Your task to perform on an android device: Open display settings Image 0: 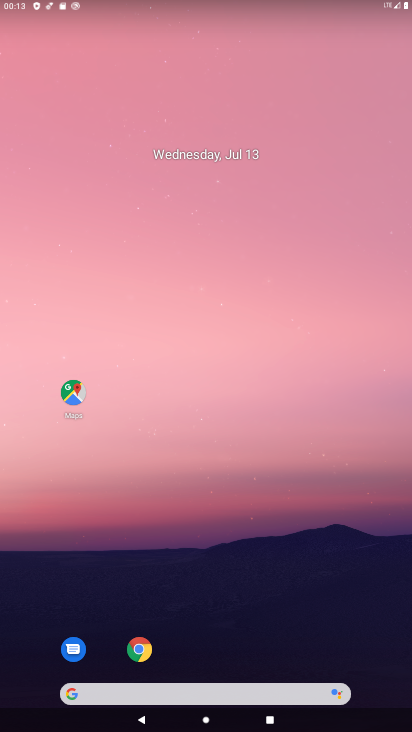
Step 0: drag from (278, 631) to (306, 35)
Your task to perform on an android device: Open display settings Image 1: 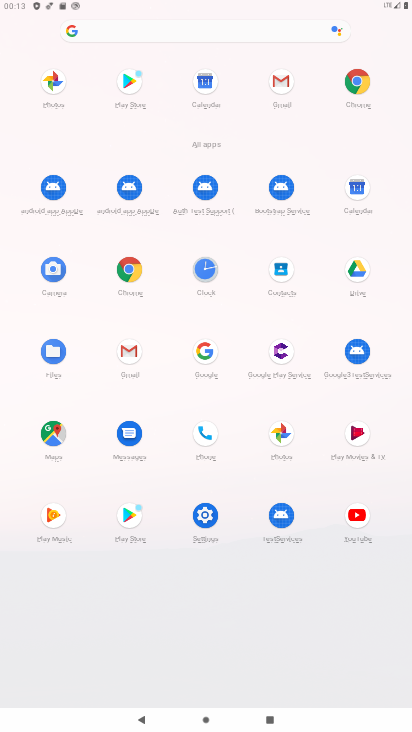
Step 1: click (217, 517)
Your task to perform on an android device: Open display settings Image 2: 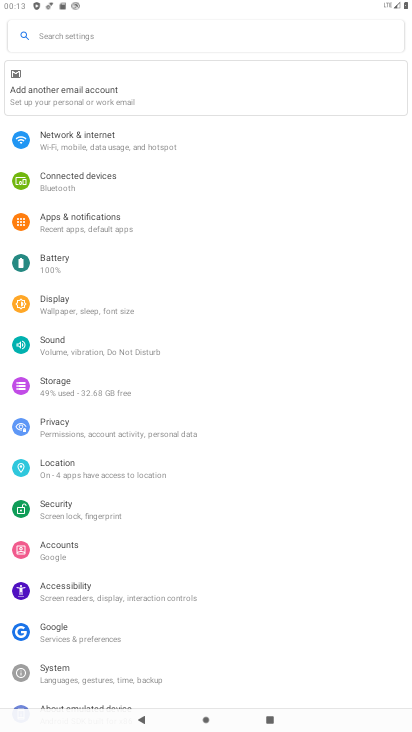
Step 2: click (60, 301)
Your task to perform on an android device: Open display settings Image 3: 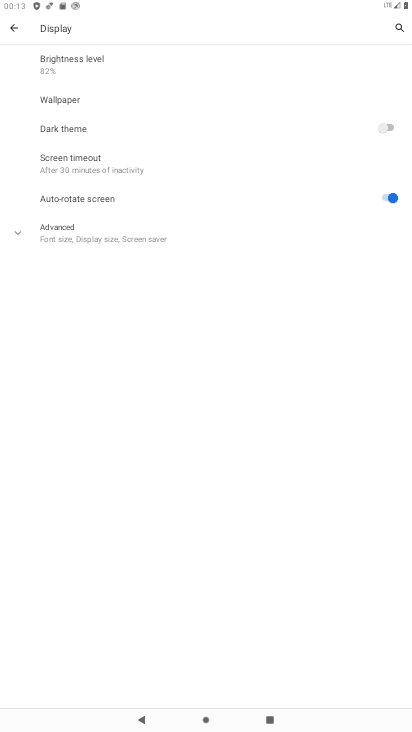
Step 3: task complete